Your task to perform on an android device: Go to Reddit.com Image 0: 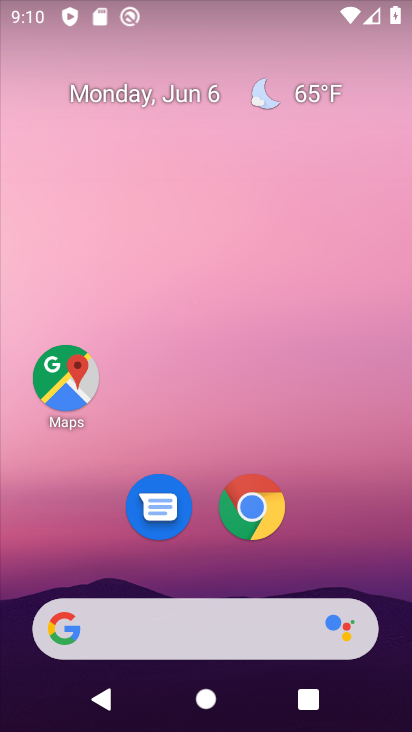
Step 0: click (258, 502)
Your task to perform on an android device: Go to Reddit.com Image 1: 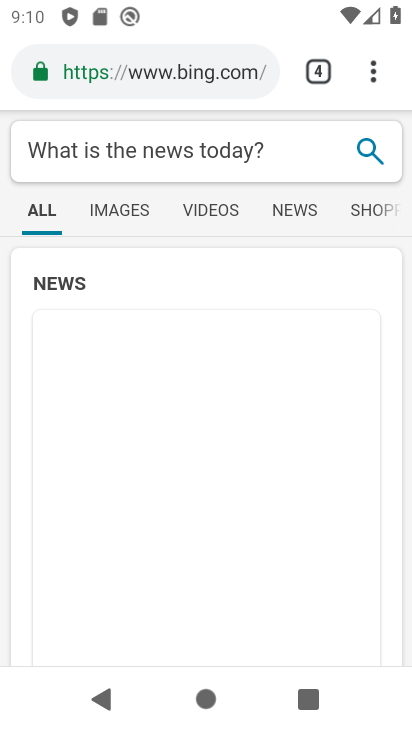
Step 1: click (371, 74)
Your task to perform on an android device: Go to Reddit.com Image 2: 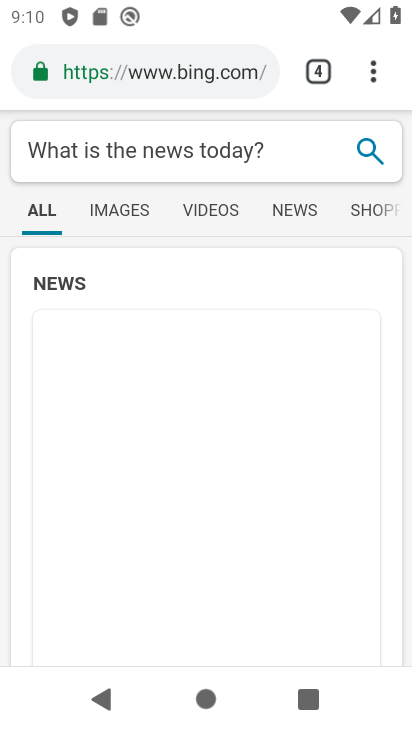
Step 2: click (370, 58)
Your task to perform on an android device: Go to Reddit.com Image 3: 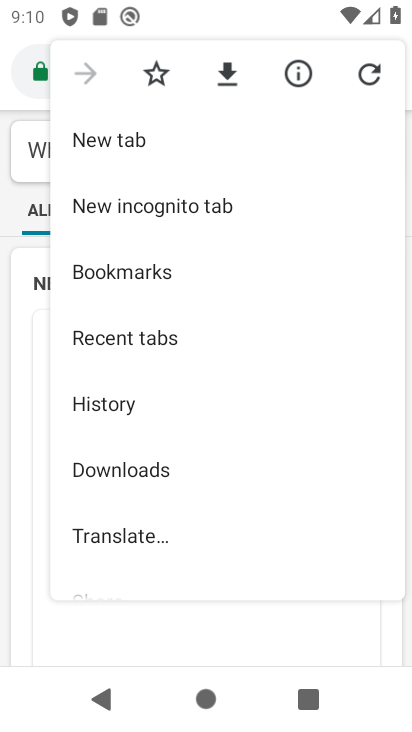
Step 3: click (153, 132)
Your task to perform on an android device: Go to Reddit.com Image 4: 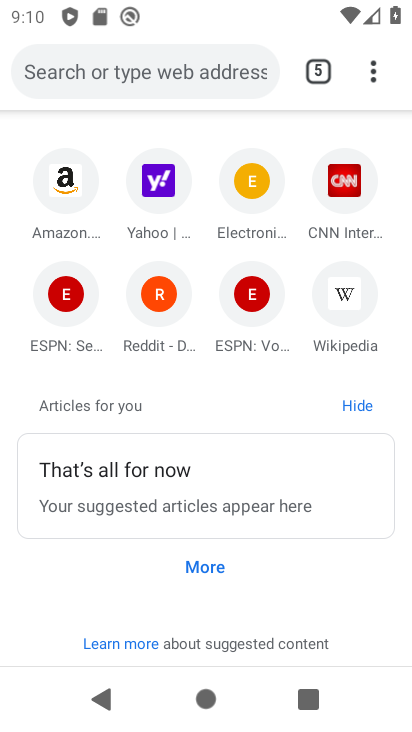
Step 4: click (153, 303)
Your task to perform on an android device: Go to Reddit.com Image 5: 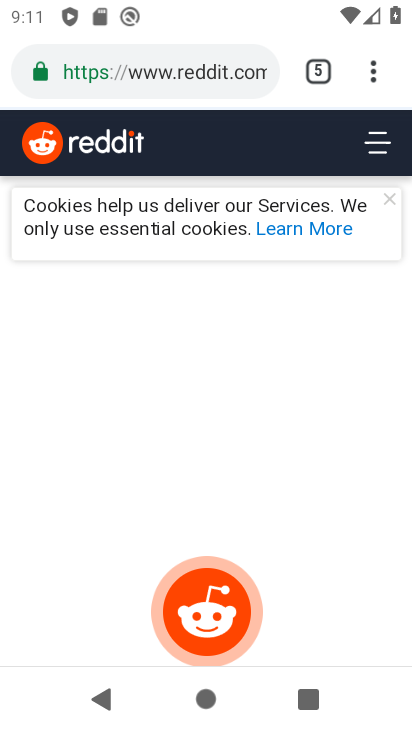
Step 5: task complete